Your task to perform on an android device: open the mobile data screen to see how much data has been used Image 0: 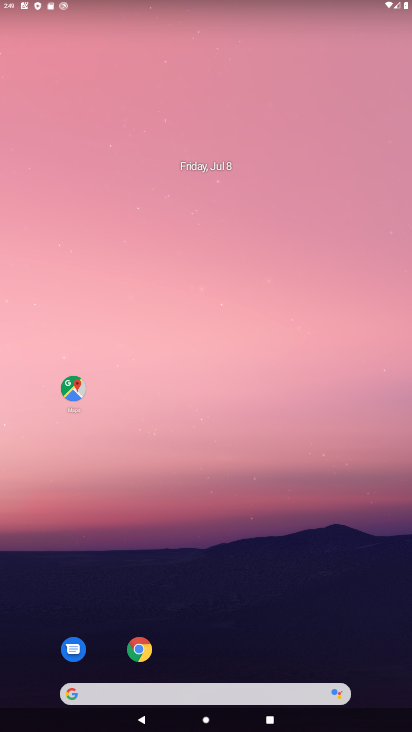
Step 0: drag from (229, 671) to (178, 107)
Your task to perform on an android device: open the mobile data screen to see how much data has been used Image 1: 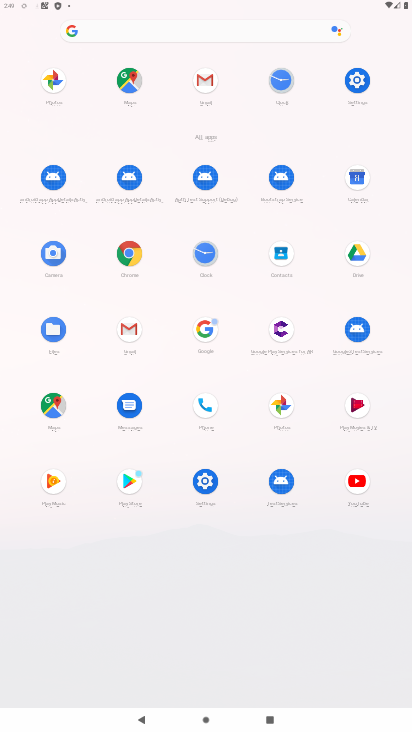
Step 1: click (353, 82)
Your task to perform on an android device: open the mobile data screen to see how much data has been used Image 2: 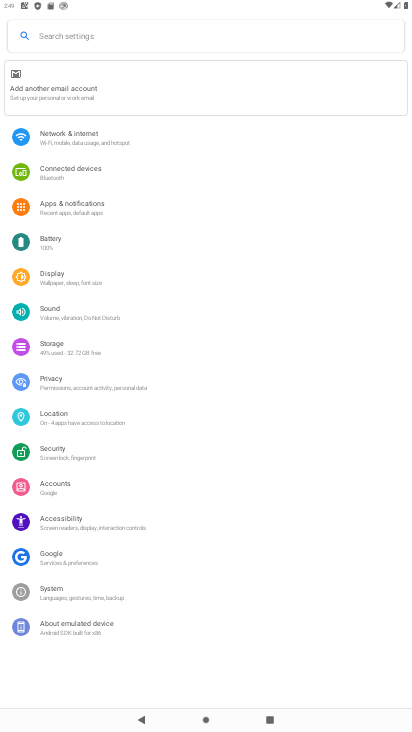
Step 2: click (65, 142)
Your task to perform on an android device: open the mobile data screen to see how much data has been used Image 3: 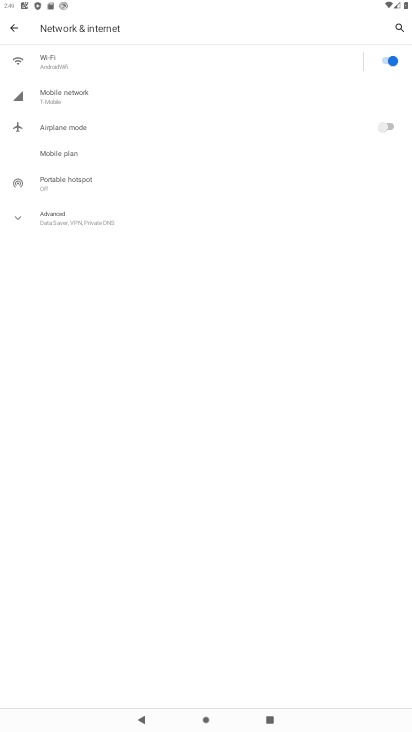
Step 3: click (59, 101)
Your task to perform on an android device: open the mobile data screen to see how much data has been used Image 4: 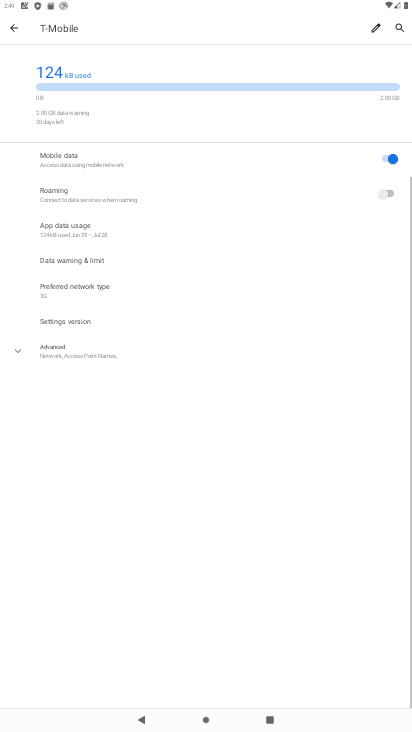
Step 4: drag from (164, 322) to (167, 515)
Your task to perform on an android device: open the mobile data screen to see how much data has been used Image 5: 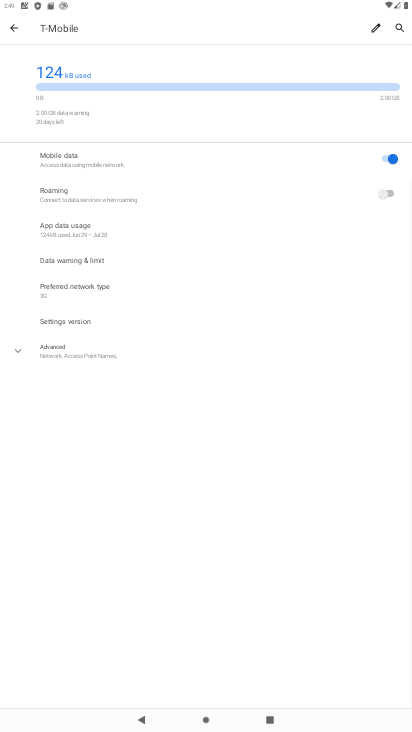
Step 5: click (71, 351)
Your task to perform on an android device: open the mobile data screen to see how much data has been used Image 6: 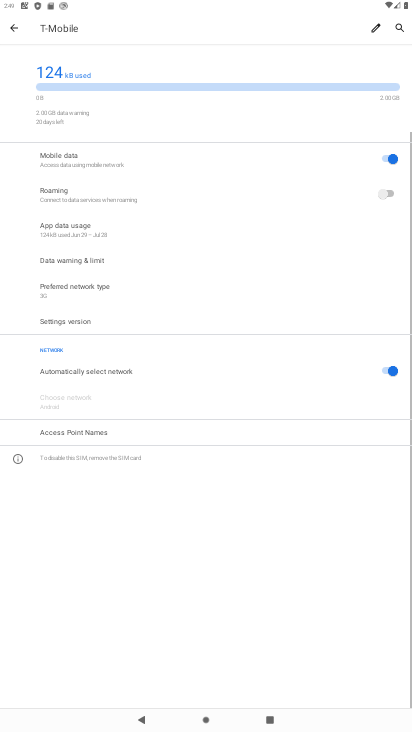
Step 6: task complete